Your task to perform on an android device: Go to network settings Image 0: 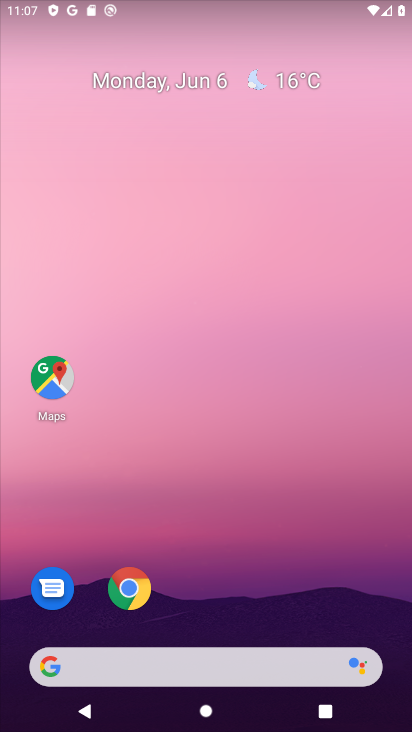
Step 0: drag from (250, 599) to (243, 3)
Your task to perform on an android device: Go to network settings Image 1: 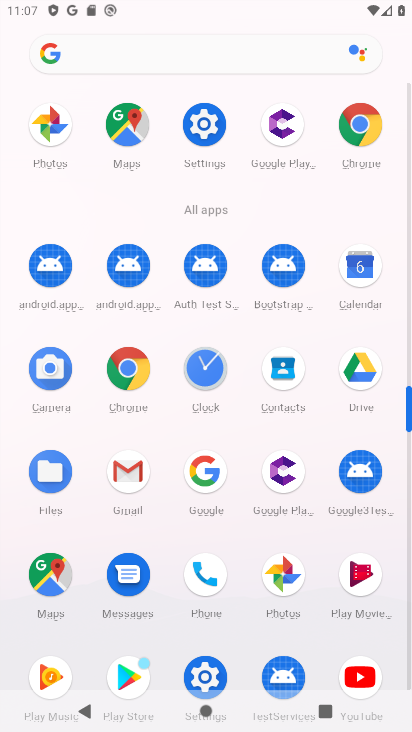
Step 1: click (205, 133)
Your task to perform on an android device: Go to network settings Image 2: 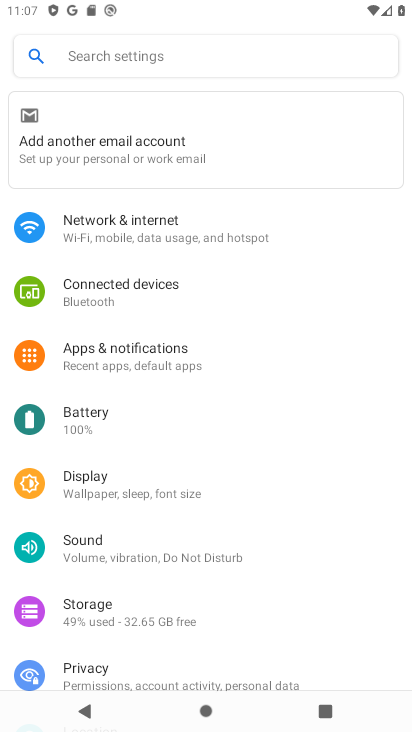
Step 2: click (165, 219)
Your task to perform on an android device: Go to network settings Image 3: 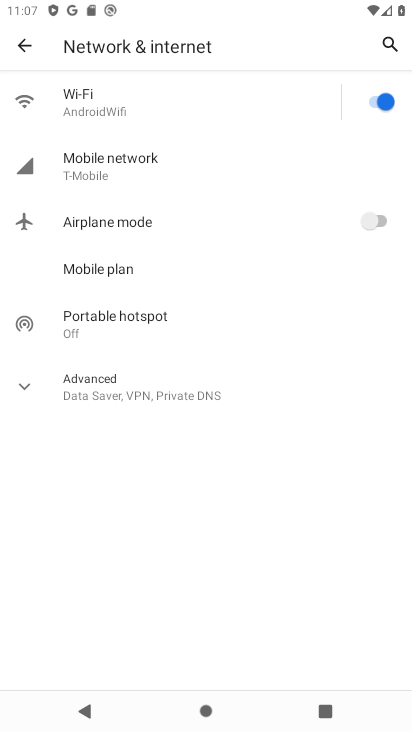
Step 3: task complete